Your task to perform on an android device: Open internet settings Image 0: 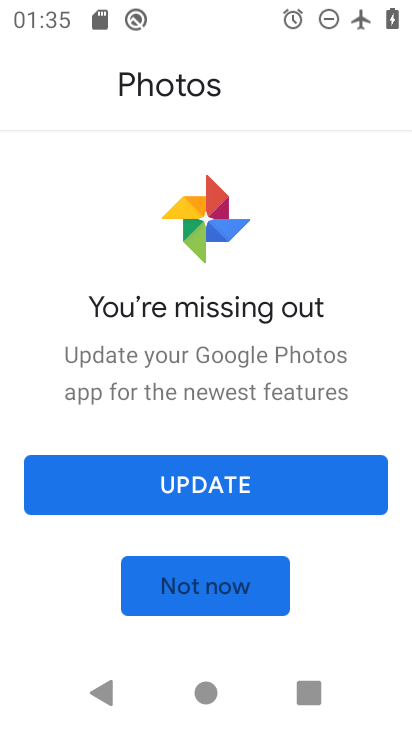
Step 0: press home button
Your task to perform on an android device: Open internet settings Image 1: 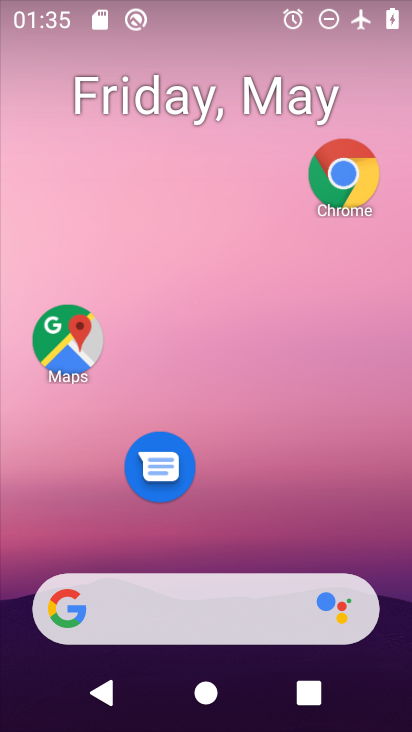
Step 1: drag from (250, 552) to (264, 218)
Your task to perform on an android device: Open internet settings Image 2: 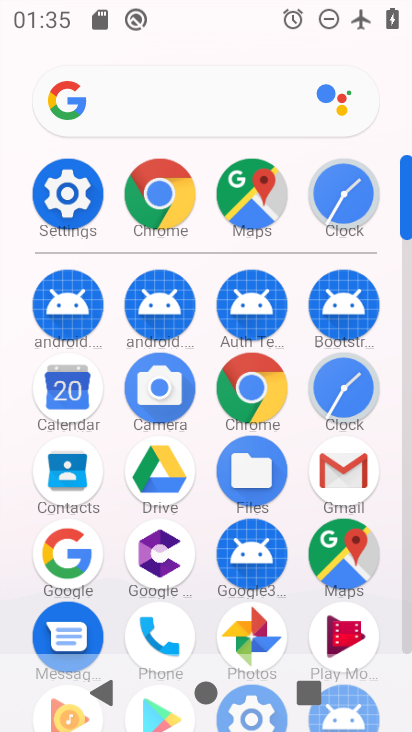
Step 2: click (58, 192)
Your task to perform on an android device: Open internet settings Image 3: 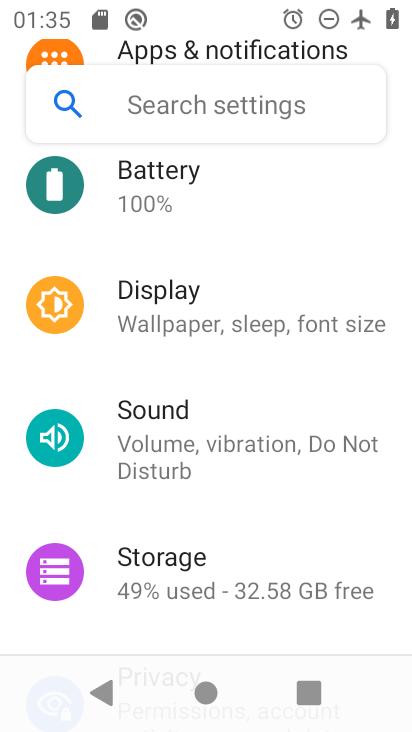
Step 3: drag from (219, 232) to (200, 565)
Your task to perform on an android device: Open internet settings Image 4: 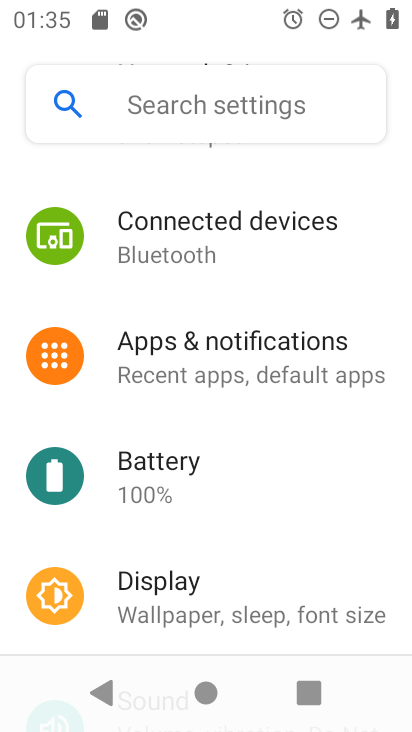
Step 4: drag from (220, 266) to (222, 576)
Your task to perform on an android device: Open internet settings Image 5: 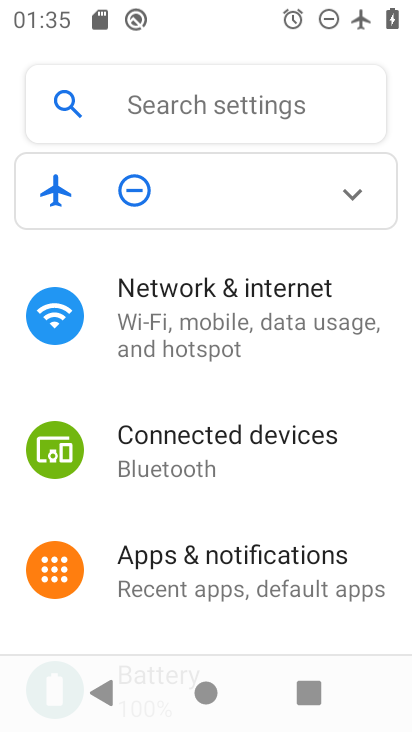
Step 5: click (229, 306)
Your task to perform on an android device: Open internet settings Image 6: 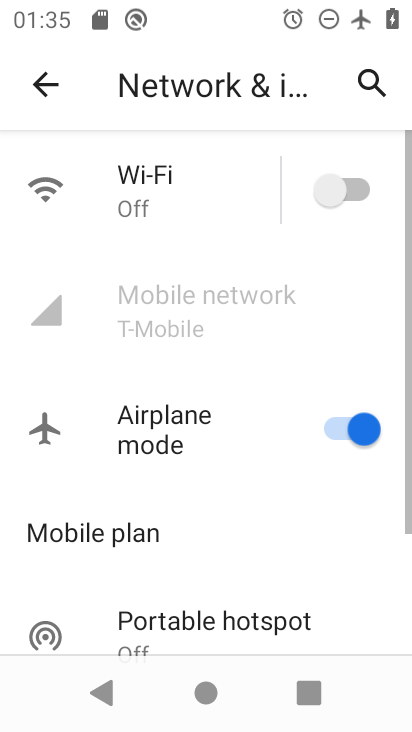
Step 6: task complete